Your task to perform on an android device: allow cookies in the chrome app Image 0: 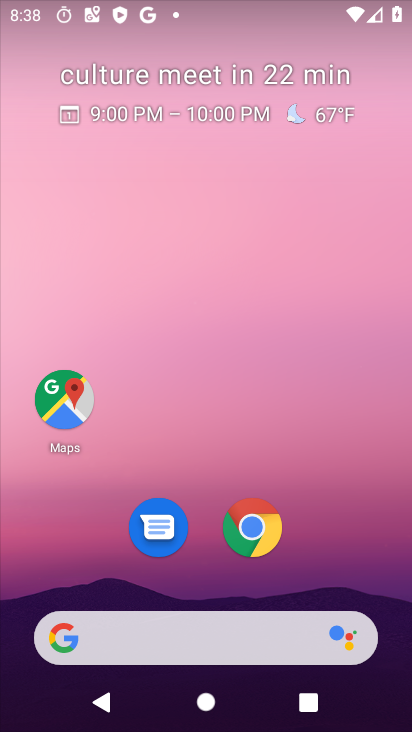
Step 0: click (260, 541)
Your task to perform on an android device: allow cookies in the chrome app Image 1: 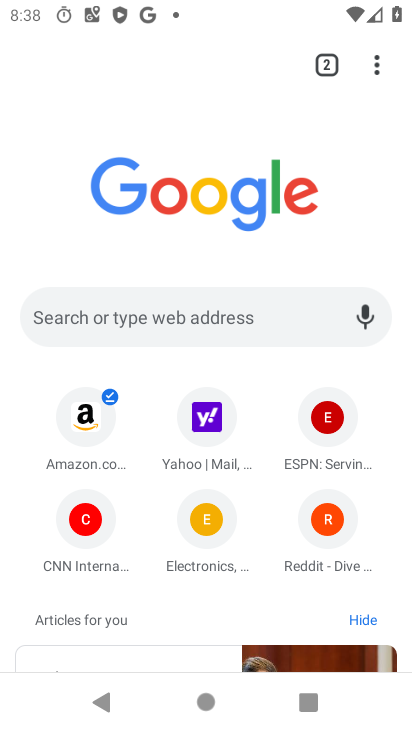
Step 1: click (375, 72)
Your task to perform on an android device: allow cookies in the chrome app Image 2: 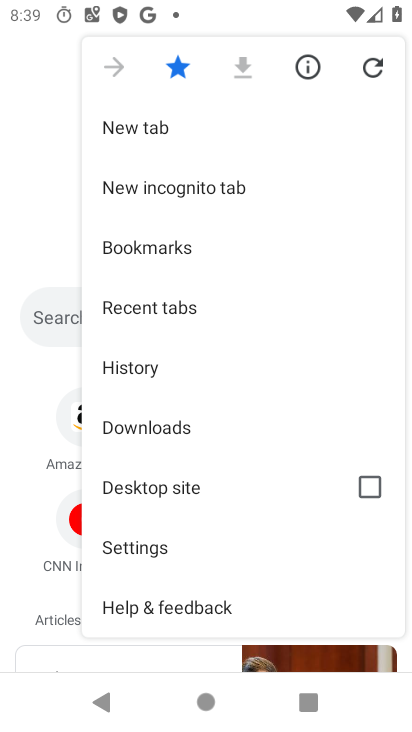
Step 2: click (130, 545)
Your task to perform on an android device: allow cookies in the chrome app Image 3: 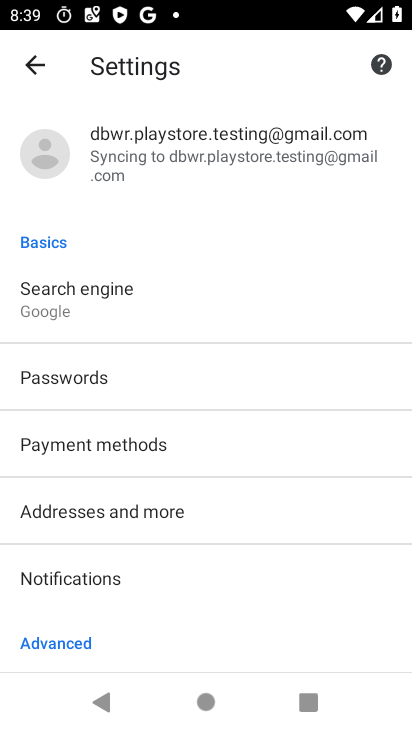
Step 3: drag from (93, 644) to (93, 285)
Your task to perform on an android device: allow cookies in the chrome app Image 4: 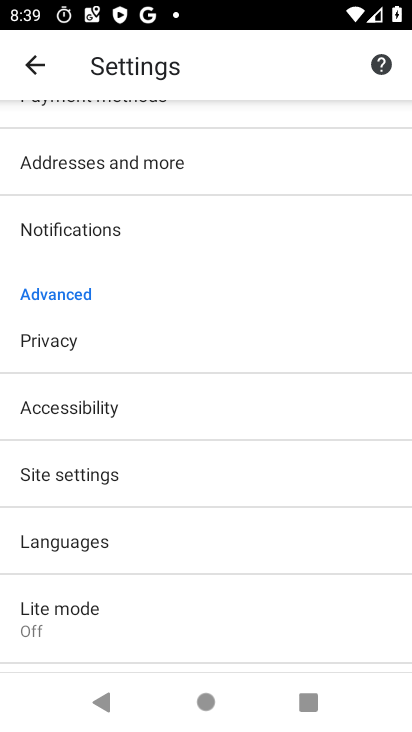
Step 4: click (84, 477)
Your task to perform on an android device: allow cookies in the chrome app Image 5: 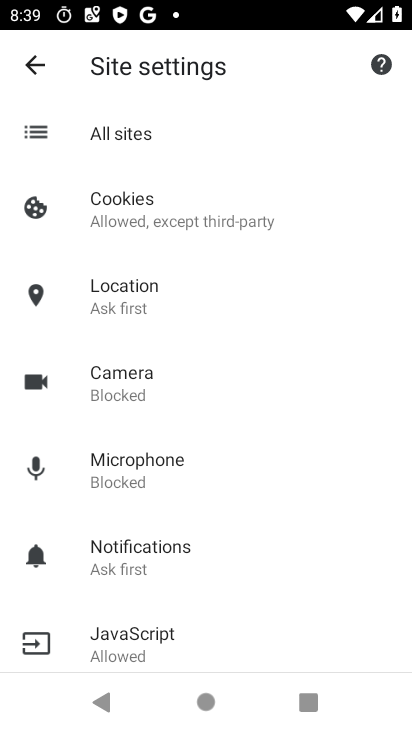
Step 5: click (125, 205)
Your task to perform on an android device: allow cookies in the chrome app Image 6: 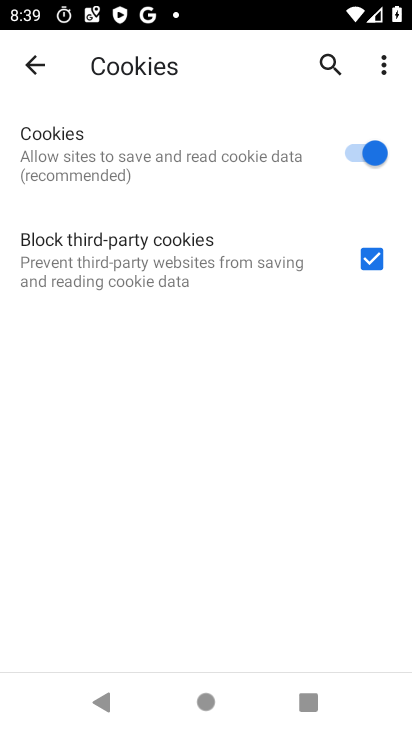
Step 6: task complete